Your task to perform on an android device: show emergency info Image 0: 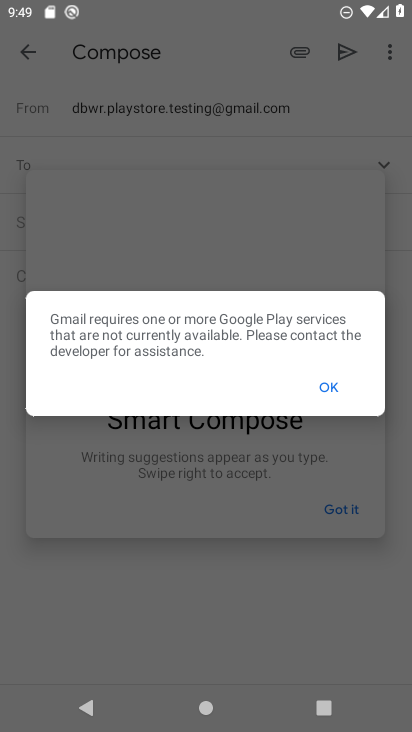
Step 0: press home button
Your task to perform on an android device: show emergency info Image 1: 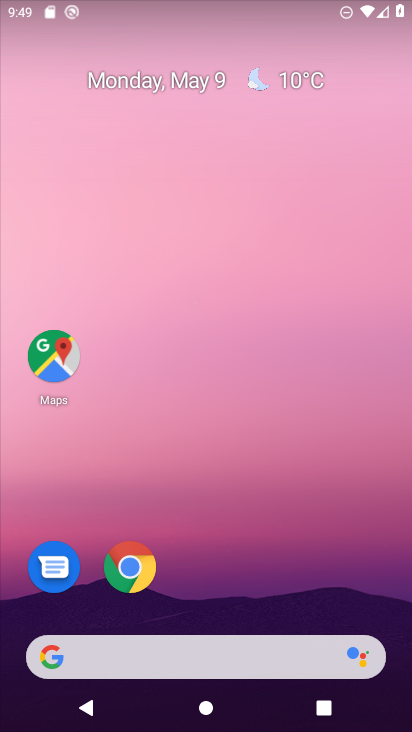
Step 1: drag from (280, 530) to (199, 23)
Your task to perform on an android device: show emergency info Image 2: 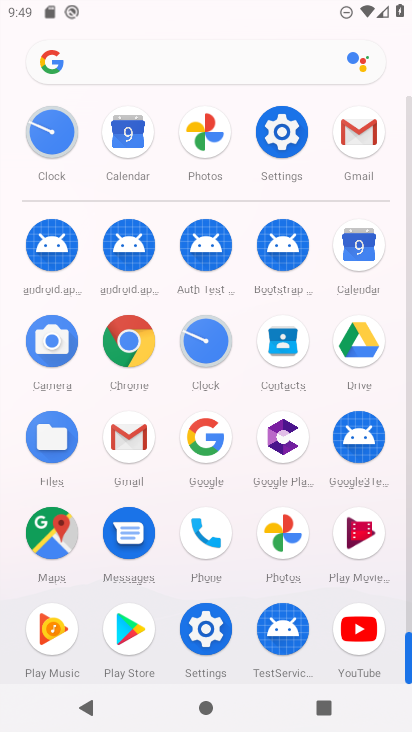
Step 2: click (282, 132)
Your task to perform on an android device: show emergency info Image 3: 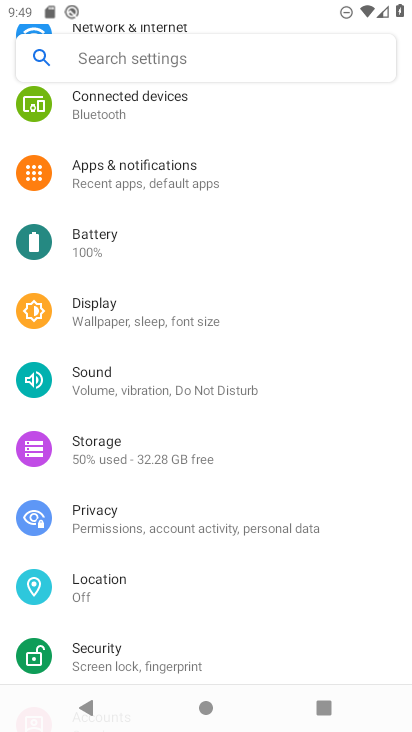
Step 3: drag from (205, 570) to (202, 112)
Your task to perform on an android device: show emergency info Image 4: 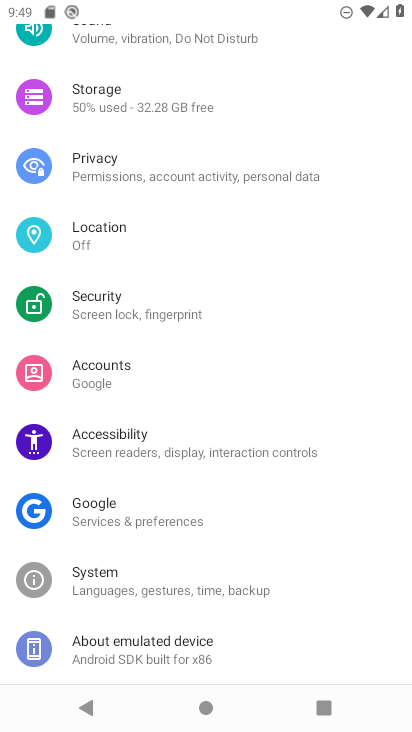
Step 4: click (162, 635)
Your task to perform on an android device: show emergency info Image 5: 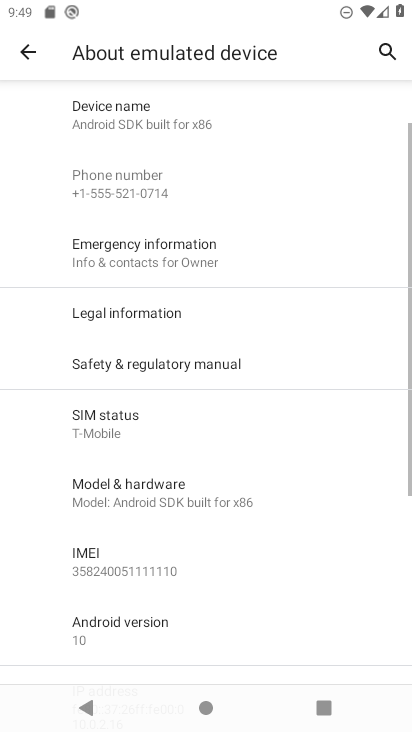
Step 5: click (184, 246)
Your task to perform on an android device: show emergency info Image 6: 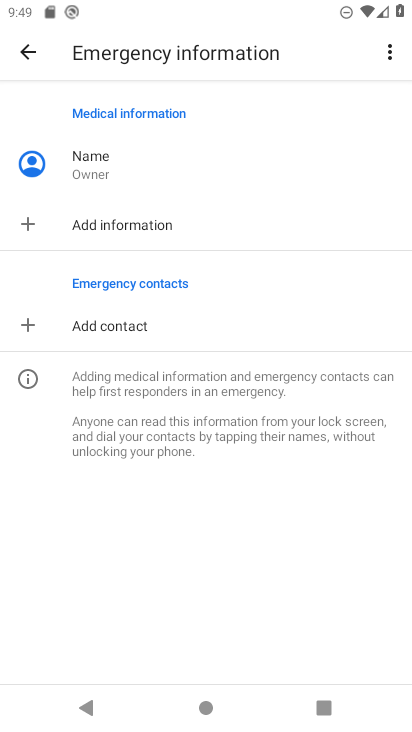
Step 6: task complete